Your task to perform on an android device: Open battery settings Image 0: 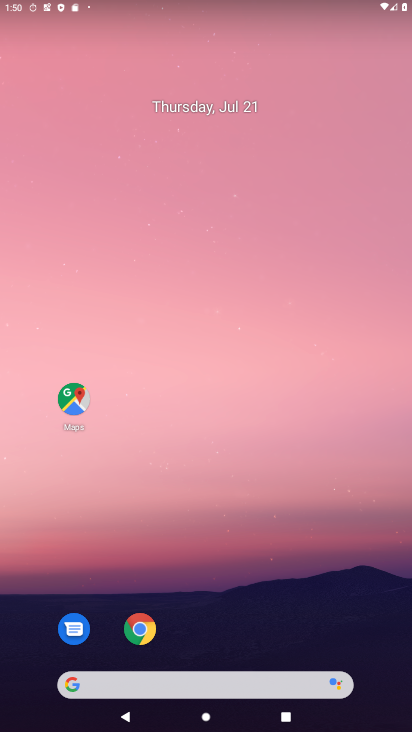
Step 0: drag from (36, 711) to (258, 82)
Your task to perform on an android device: Open battery settings Image 1: 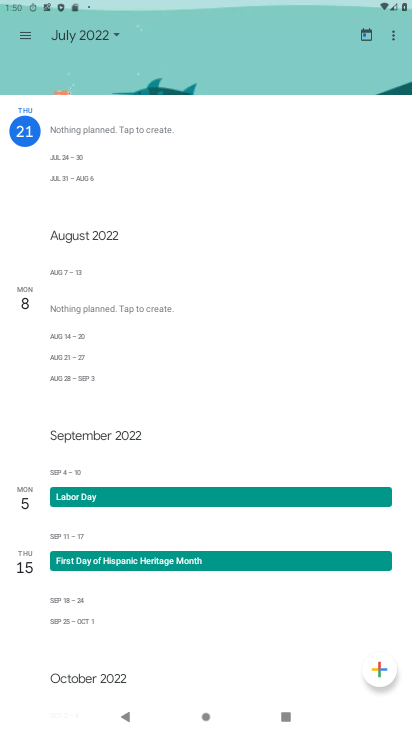
Step 1: press home button
Your task to perform on an android device: Open battery settings Image 2: 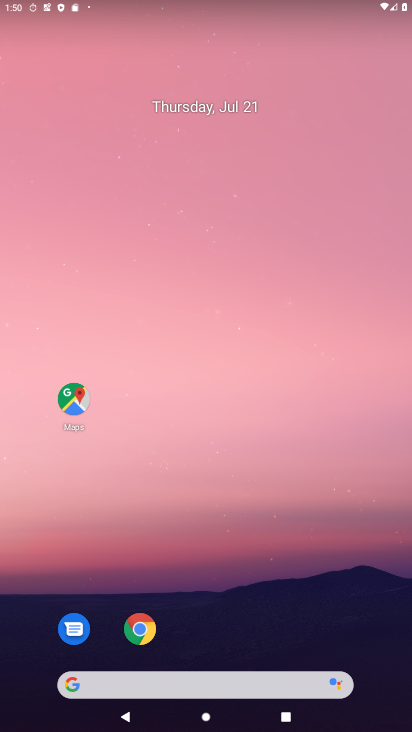
Step 2: drag from (32, 699) to (254, 93)
Your task to perform on an android device: Open battery settings Image 3: 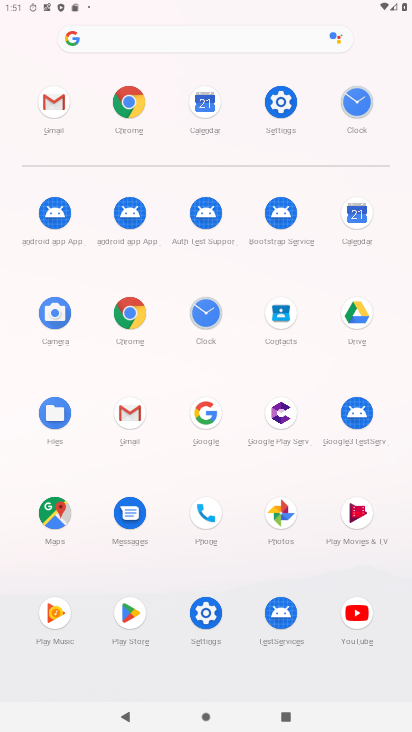
Step 3: click (206, 610)
Your task to perform on an android device: Open battery settings Image 4: 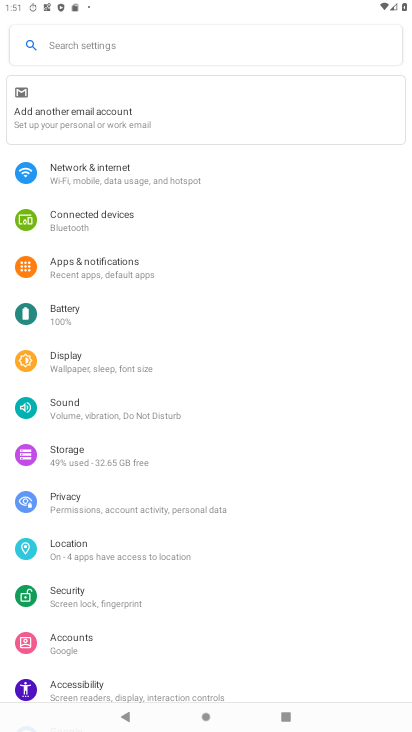
Step 4: click (87, 320)
Your task to perform on an android device: Open battery settings Image 5: 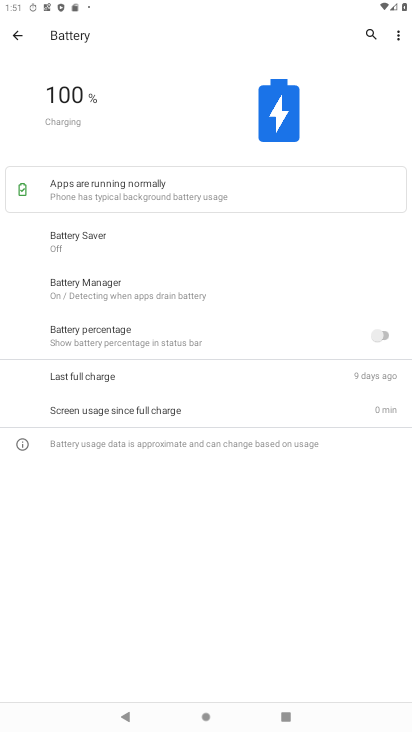
Step 5: task complete